Your task to perform on an android device: turn on airplane mode Image 0: 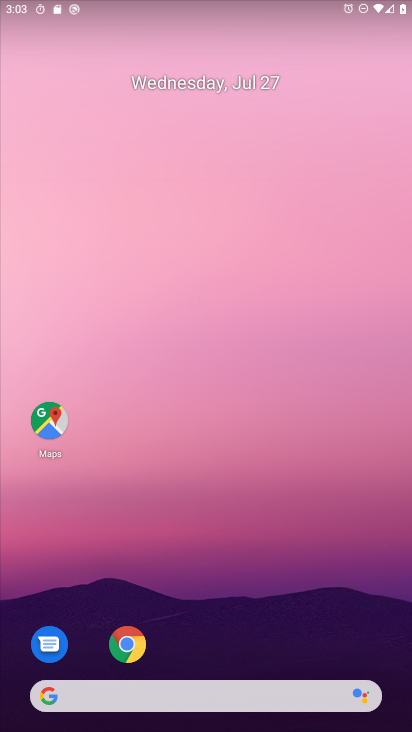
Step 0: drag from (187, 666) to (278, 202)
Your task to perform on an android device: turn on airplane mode Image 1: 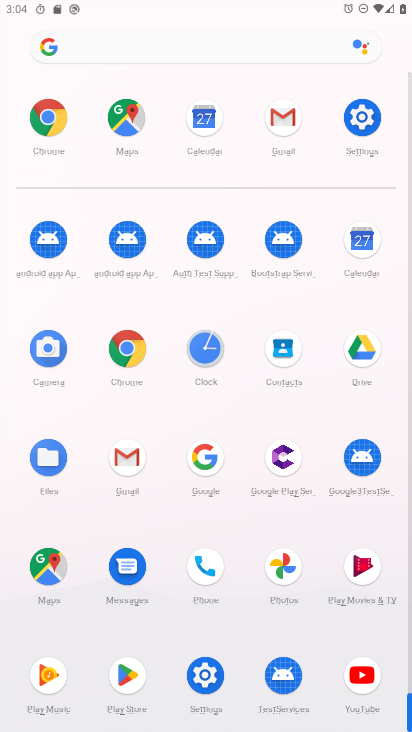
Step 1: click (195, 673)
Your task to perform on an android device: turn on airplane mode Image 2: 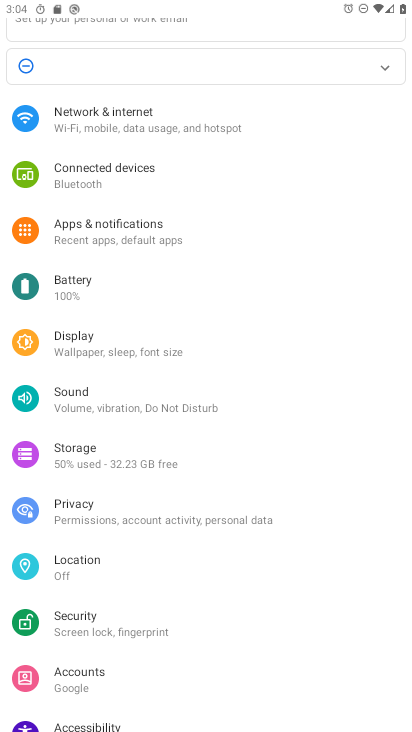
Step 2: drag from (165, 203) to (183, 731)
Your task to perform on an android device: turn on airplane mode Image 3: 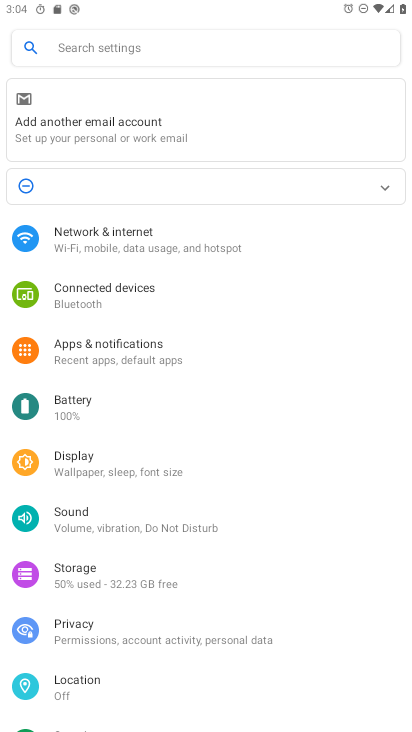
Step 3: click (149, 248)
Your task to perform on an android device: turn on airplane mode Image 4: 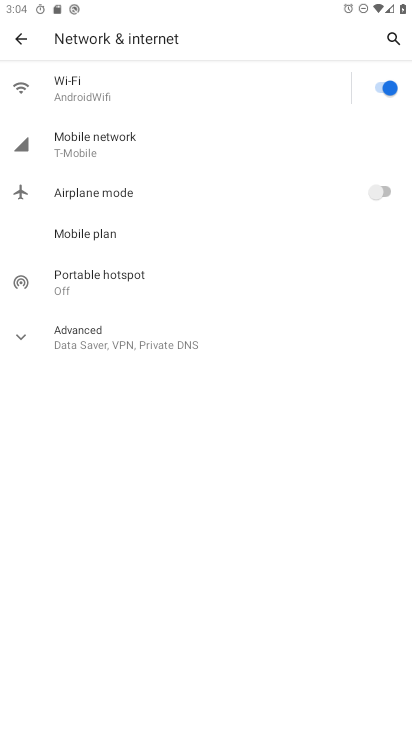
Step 4: drag from (155, 639) to (213, 400)
Your task to perform on an android device: turn on airplane mode Image 5: 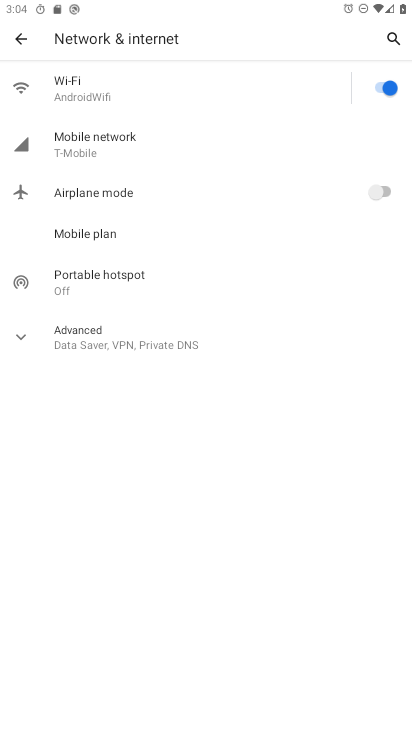
Step 5: click (114, 195)
Your task to perform on an android device: turn on airplane mode Image 6: 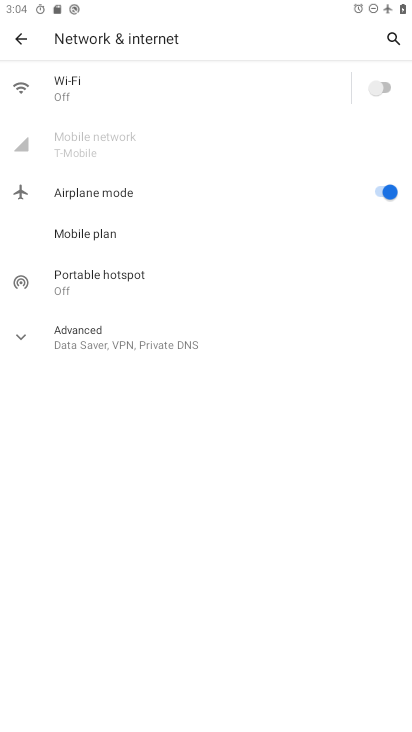
Step 6: task complete